Your task to perform on an android device: Open the calendar and show me this week's events? Image 0: 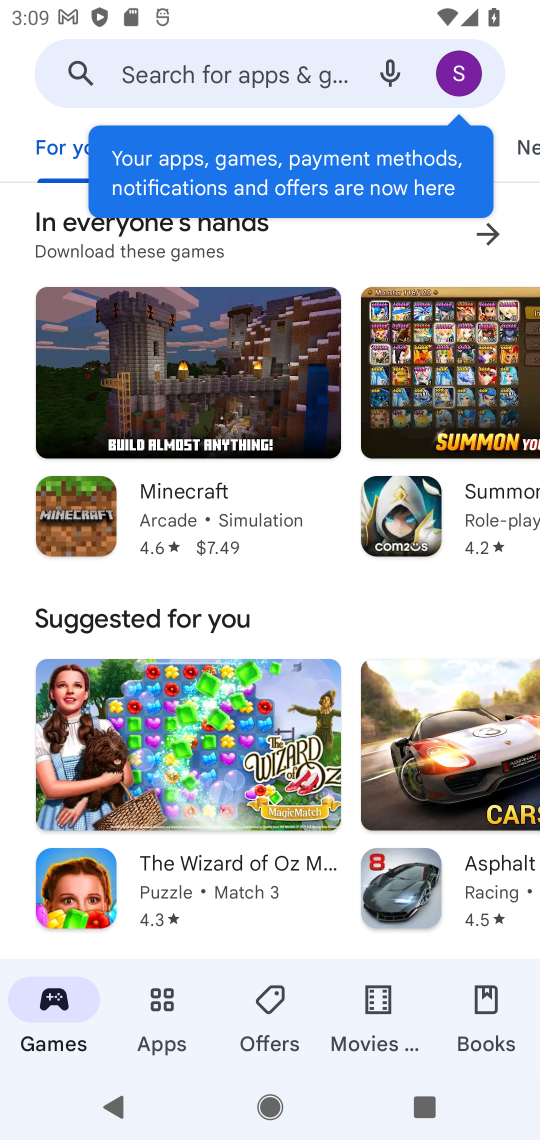
Step 0: press home button
Your task to perform on an android device: Open the calendar and show me this week's events? Image 1: 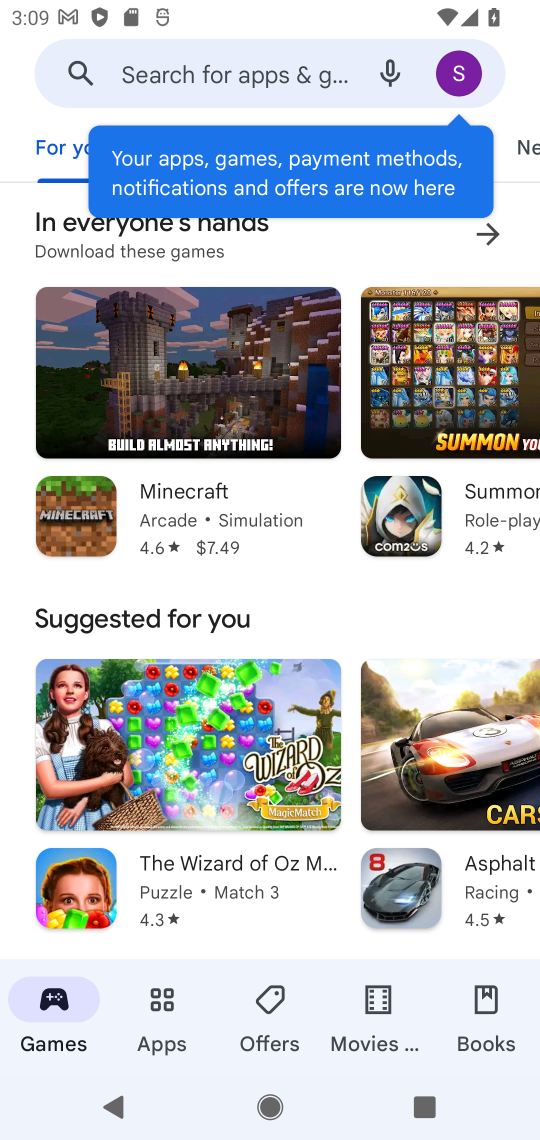
Step 1: press home button
Your task to perform on an android device: Open the calendar and show me this week's events? Image 2: 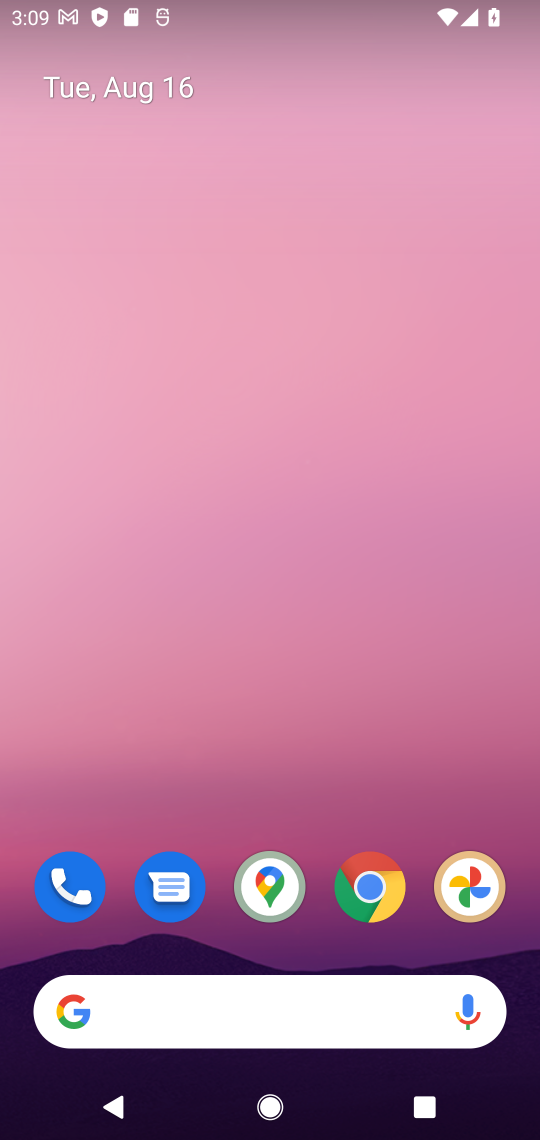
Step 2: drag from (223, 949) to (218, 12)
Your task to perform on an android device: Open the calendar and show me this week's events? Image 3: 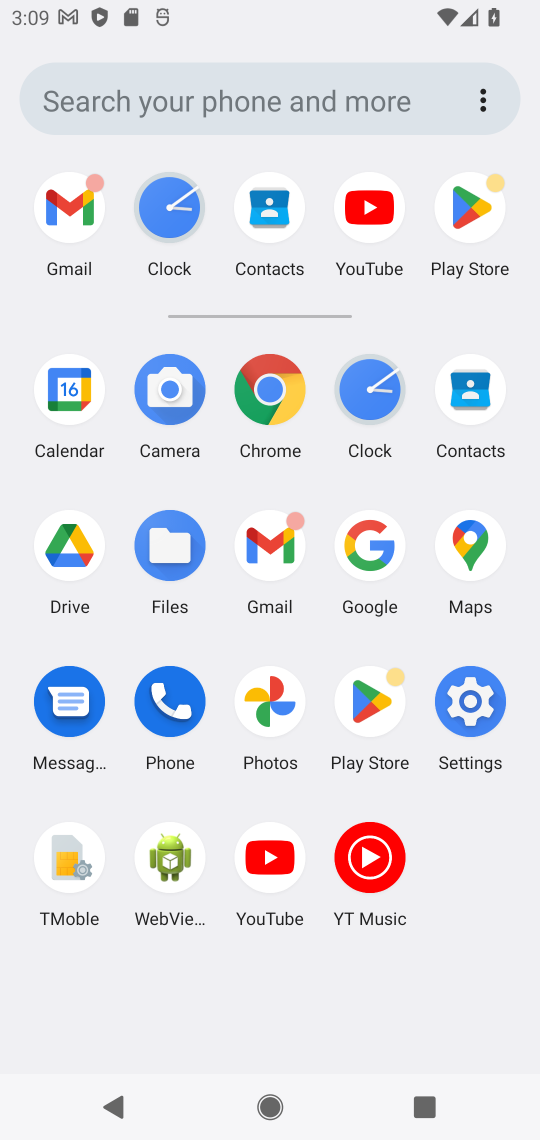
Step 3: click (74, 404)
Your task to perform on an android device: Open the calendar and show me this week's events? Image 4: 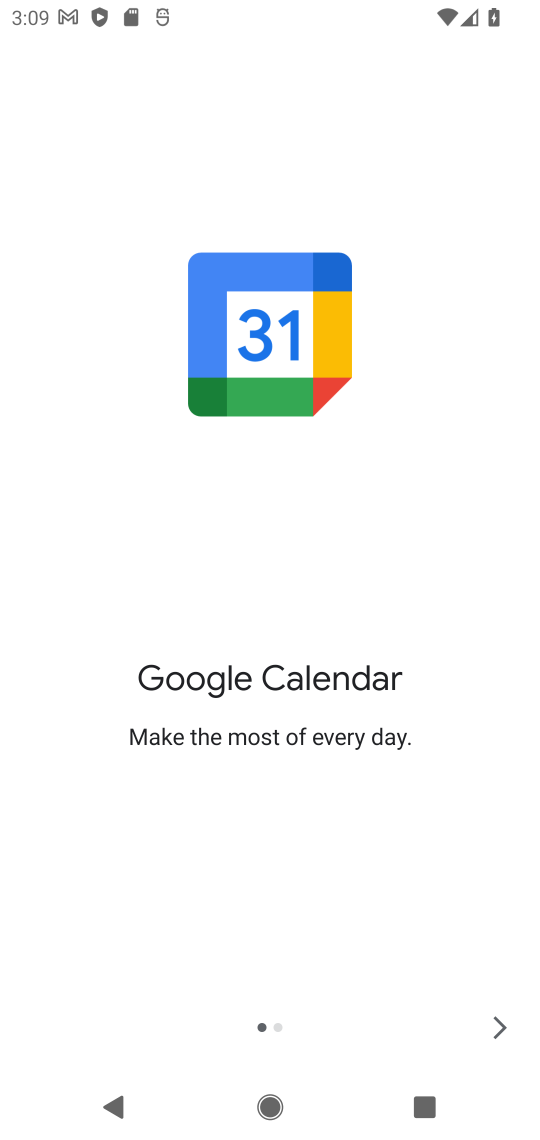
Step 4: click (494, 1034)
Your task to perform on an android device: Open the calendar and show me this week's events? Image 5: 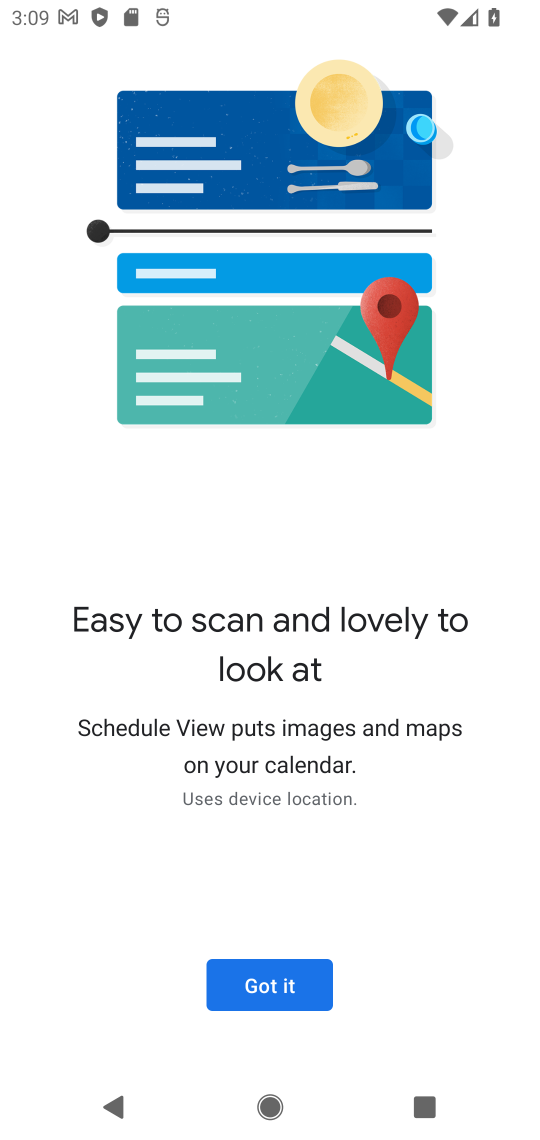
Step 5: click (494, 1034)
Your task to perform on an android device: Open the calendar and show me this week's events? Image 6: 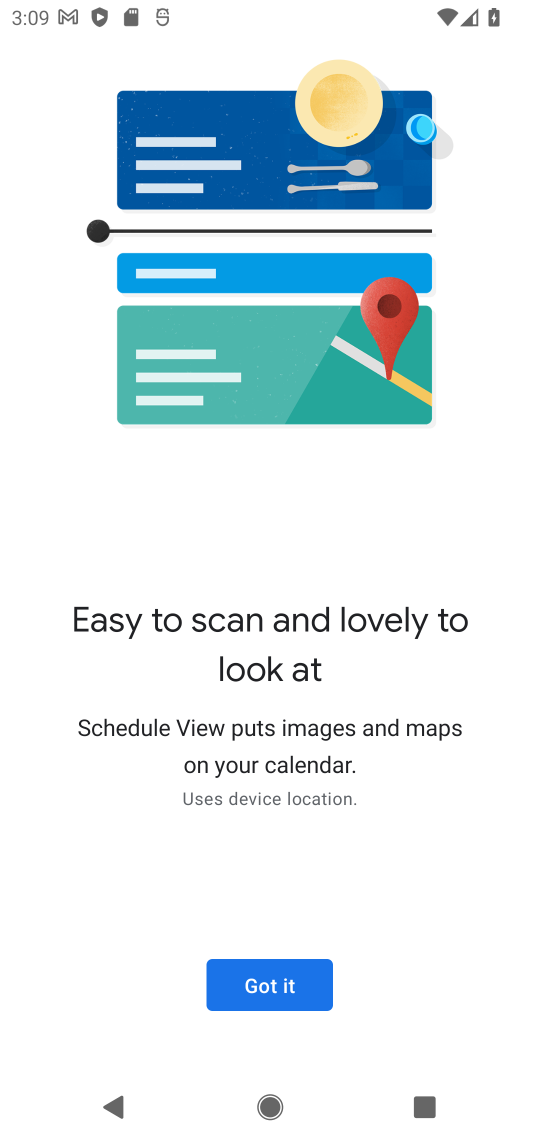
Step 6: click (305, 979)
Your task to perform on an android device: Open the calendar and show me this week's events? Image 7: 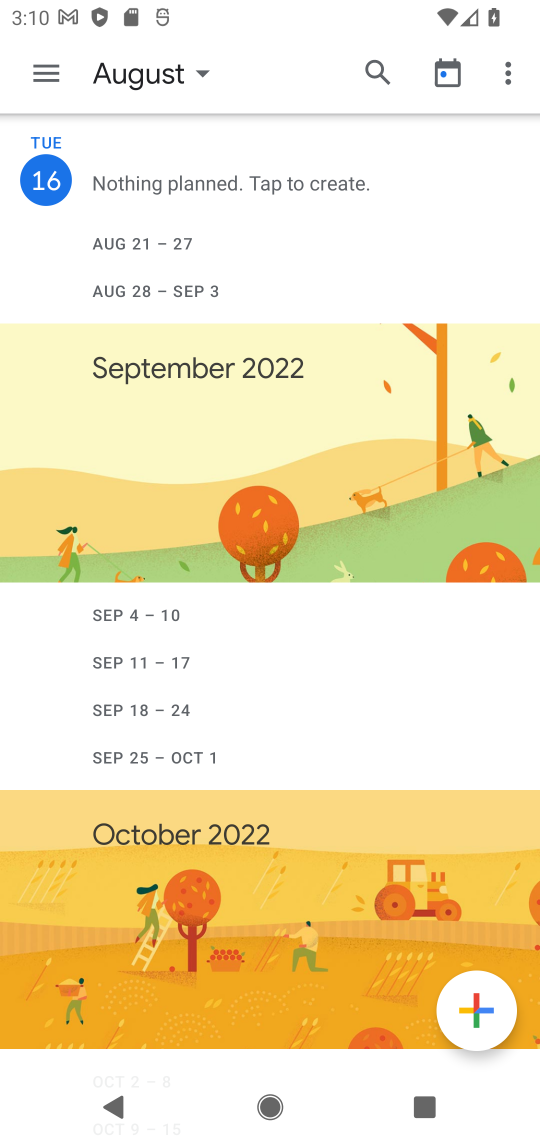
Step 7: click (54, 68)
Your task to perform on an android device: Open the calendar and show me this week's events? Image 8: 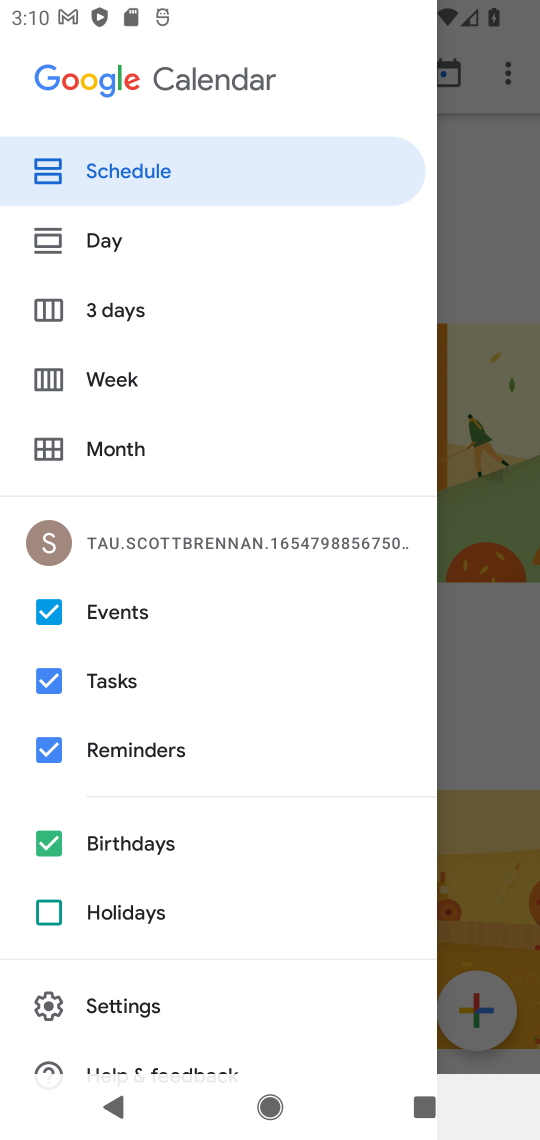
Step 8: click (126, 391)
Your task to perform on an android device: Open the calendar and show me this week's events? Image 9: 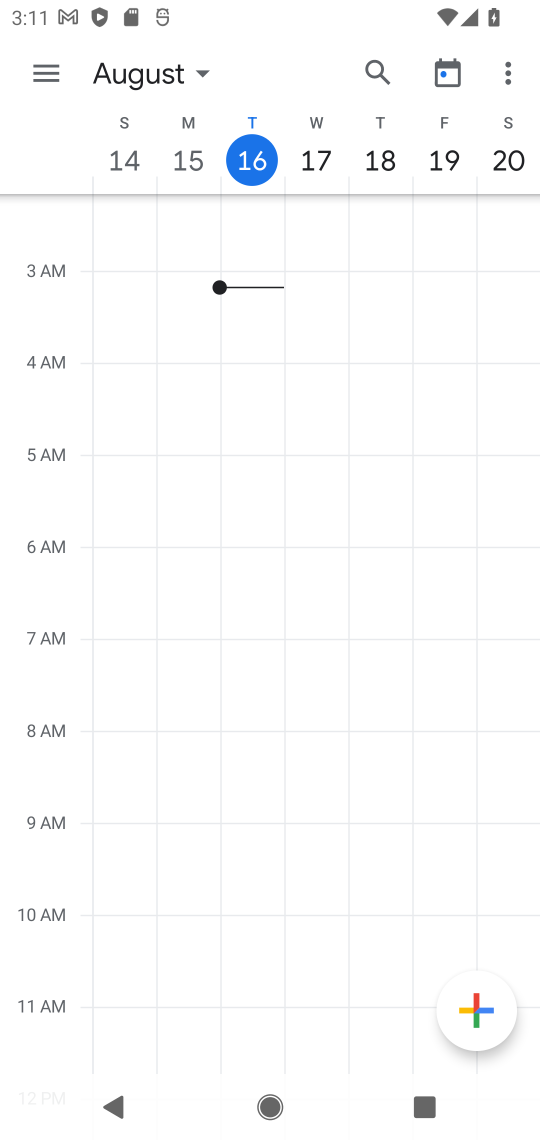
Step 9: task complete